Your task to perform on an android device: Open the calendar app, open the side menu, and click the "Day" option Image 0: 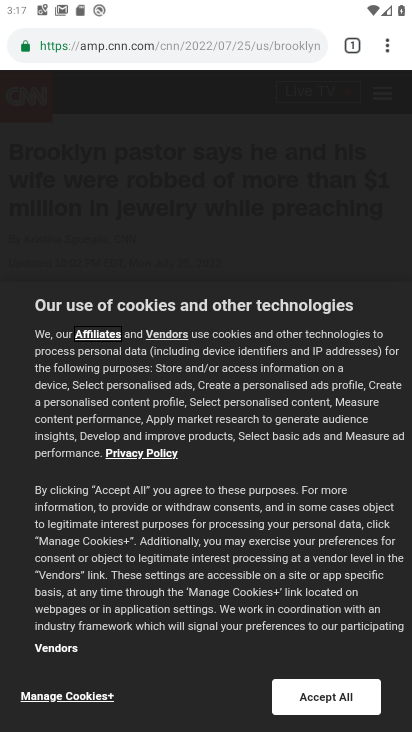
Step 0: press home button
Your task to perform on an android device: Open the calendar app, open the side menu, and click the "Day" option Image 1: 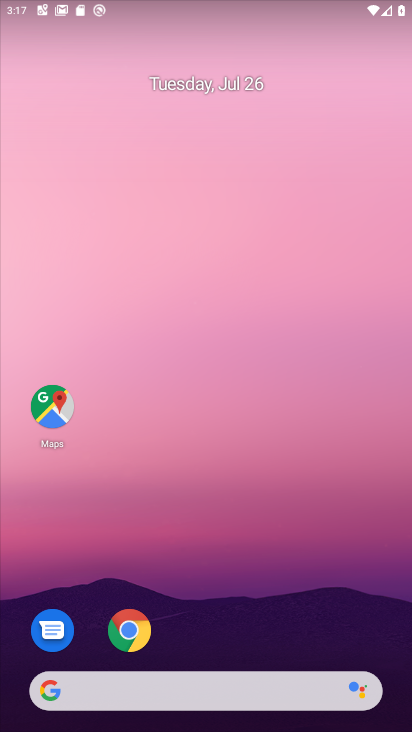
Step 1: click (167, 76)
Your task to perform on an android device: Open the calendar app, open the side menu, and click the "Day" option Image 2: 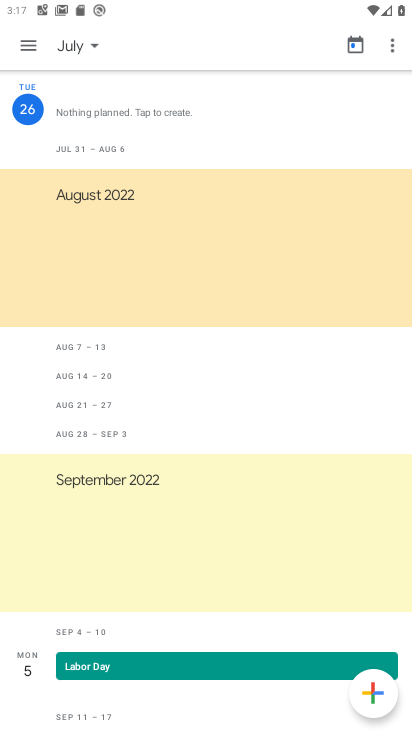
Step 2: click (16, 49)
Your task to perform on an android device: Open the calendar app, open the side menu, and click the "Day" option Image 3: 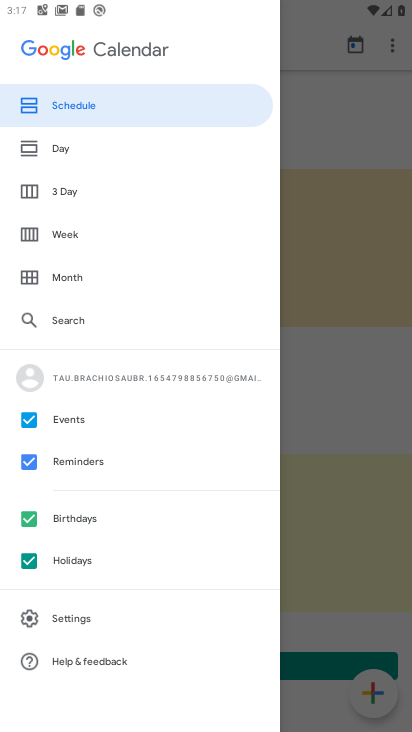
Step 3: click (64, 151)
Your task to perform on an android device: Open the calendar app, open the side menu, and click the "Day" option Image 4: 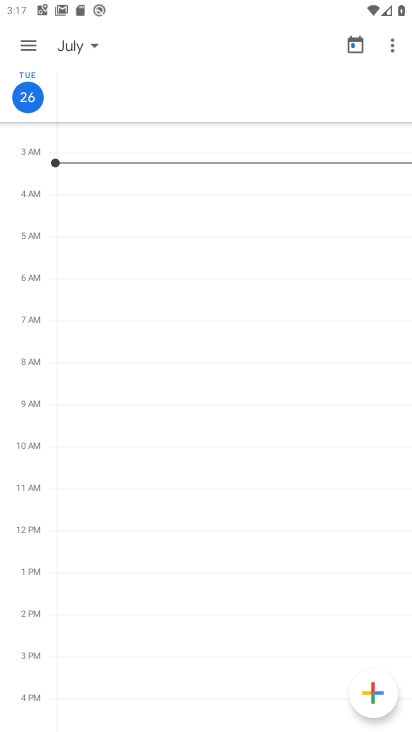
Step 4: task complete